Your task to perform on an android device: Open internet settings Image 0: 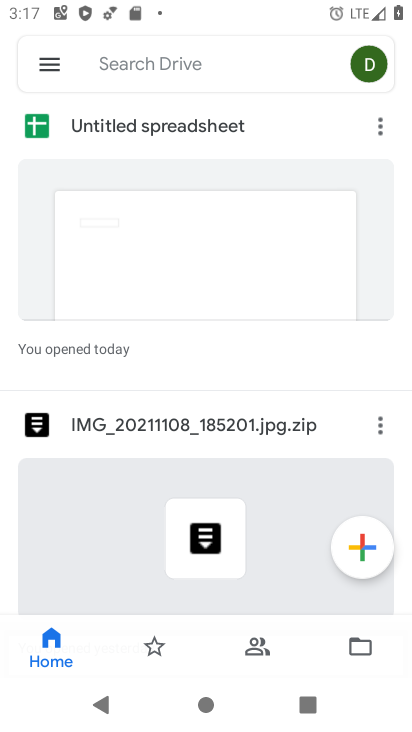
Step 0: press home button
Your task to perform on an android device: Open internet settings Image 1: 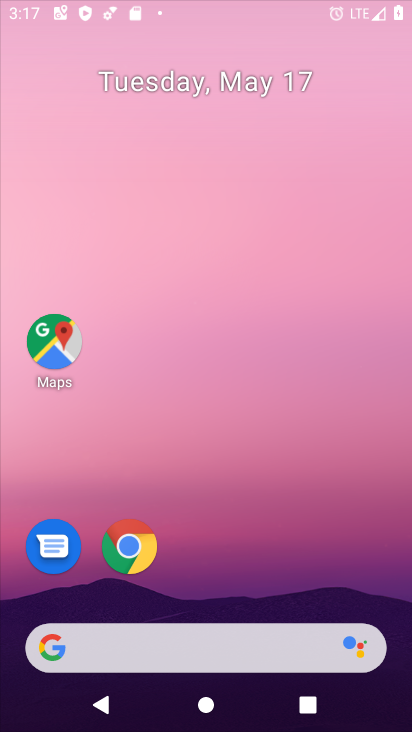
Step 1: drag from (382, 472) to (407, 165)
Your task to perform on an android device: Open internet settings Image 2: 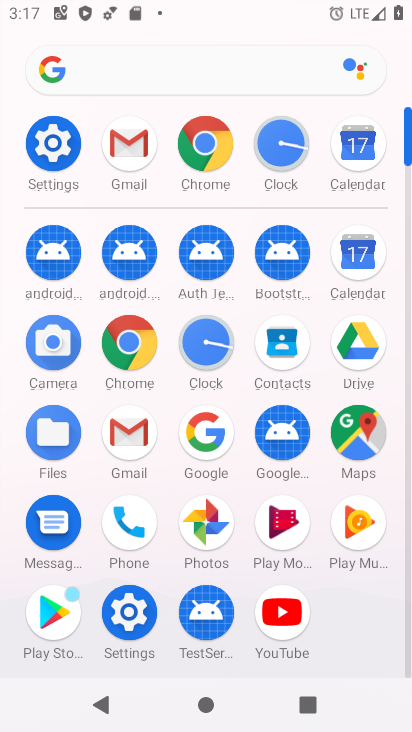
Step 2: click (42, 126)
Your task to perform on an android device: Open internet settings Image 3: 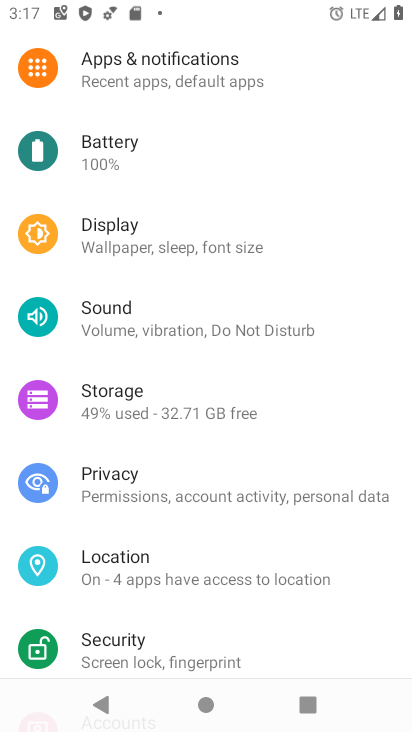
Step 3: drag from (127, 140) to (187, 664)
Your task to perform on an android device: Open internet settings Image 4: 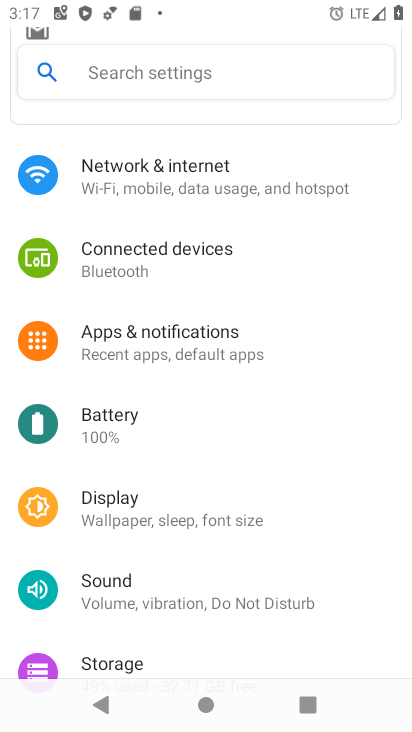
Step 4: click (168, 199)
Your task to perform on an android device: Open internet settings Image 5: 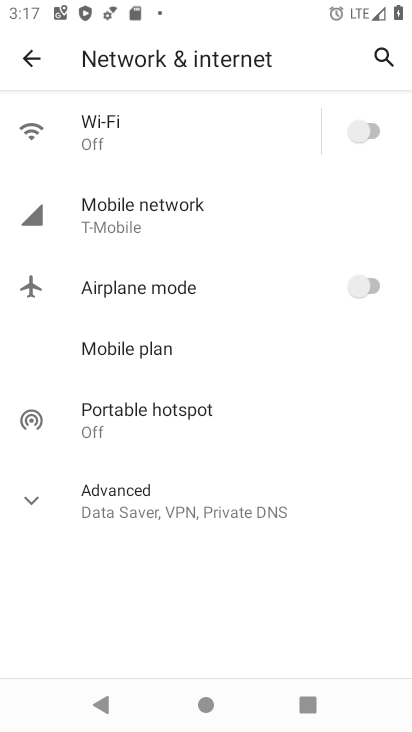
Step 5: task complete